Your task to perform on an android device: allow notifications from all sites in the chrome app Image 0: 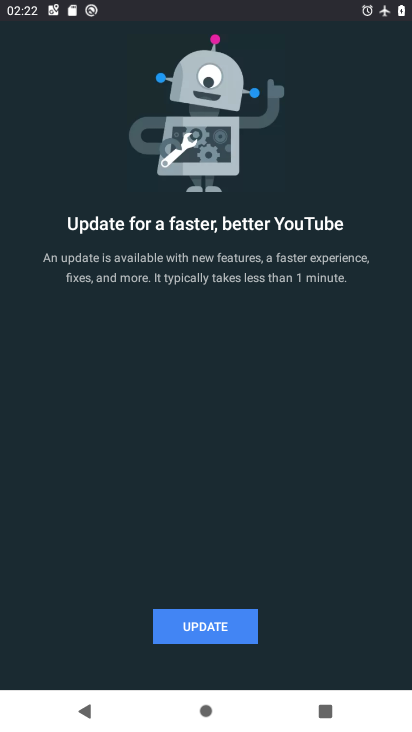
Step 0: press home button
Your task to perform on an android device: allow notifications from all sites in the chrome app Image 1: 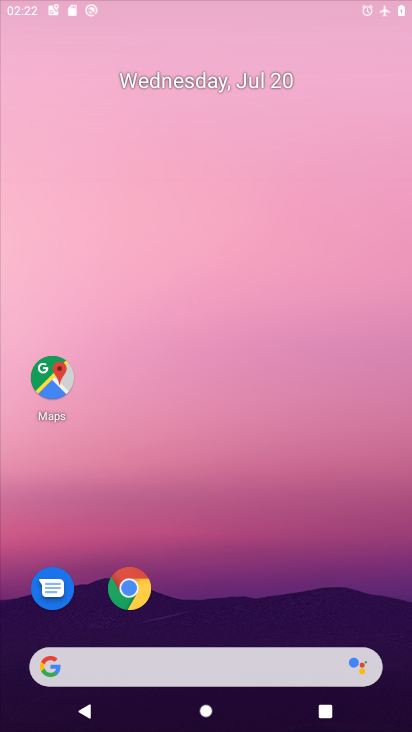
Step 1: drag from (271, 667) to (269, 270)
Your task to perform on an android device: allow notifications from all sites in the chrome app Image 2: 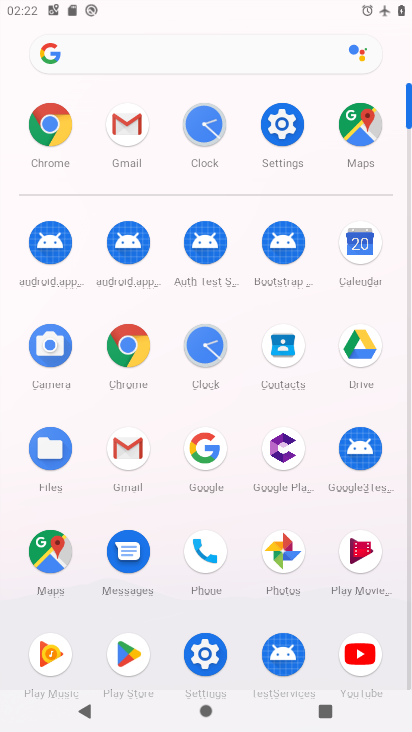
Step 2: click (50, 122)
Your task to perform on an android device: allow notifications from all sites in the chrome app Image 3: 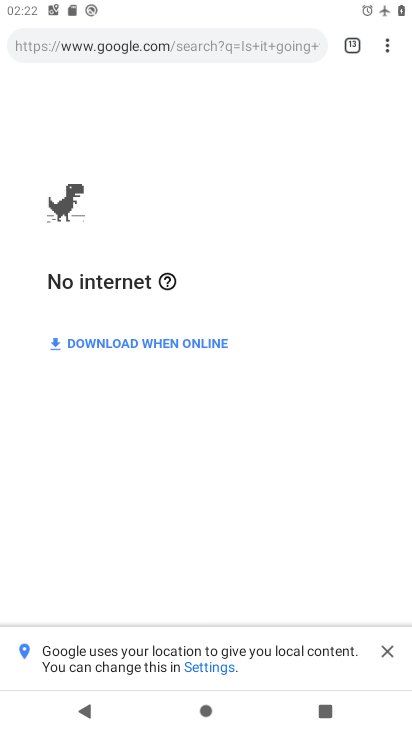
Step 3: click (385, 40)
Your task to perform on an android device: allow notifications from all sites in the chrome app Image 4: 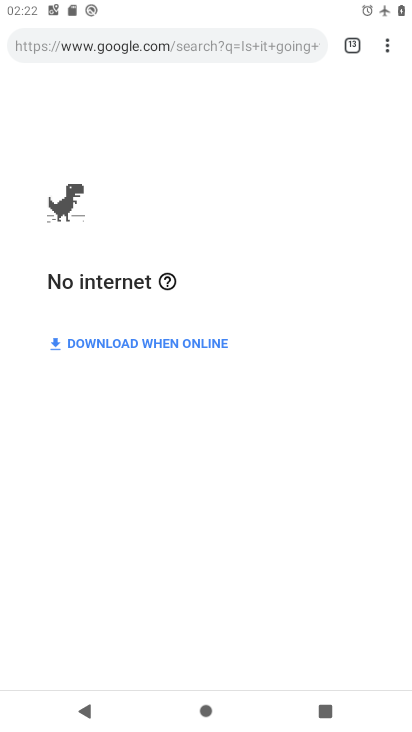
Step 4: click (385, 43)
Your task to perform on an android device: allow notifications from all sites in the chrome app Image 5: 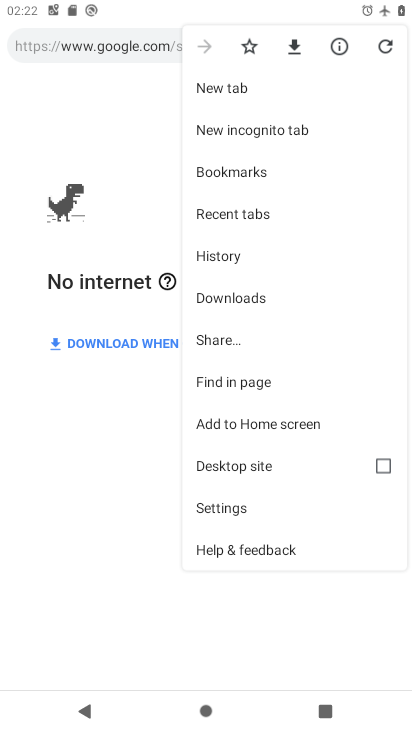
Step 5: click (263, 508)
Your task to perform on an android device: allow notifications from all sites in the chrome app Image 6: 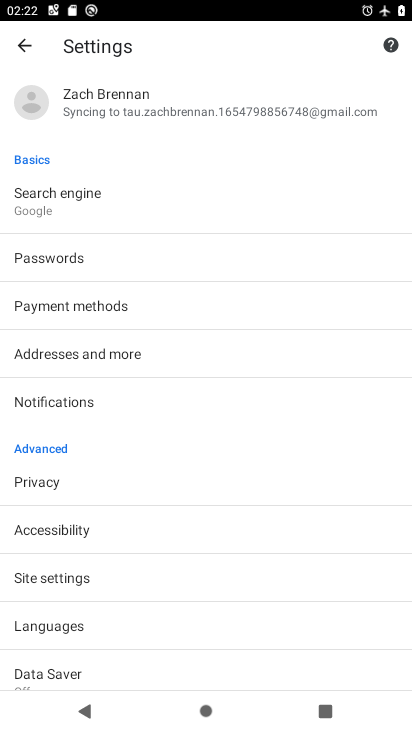
Step 6: click (112, 583)
Your task to perform on an android device: allow notifications from all sites in the chrome app Image 7: 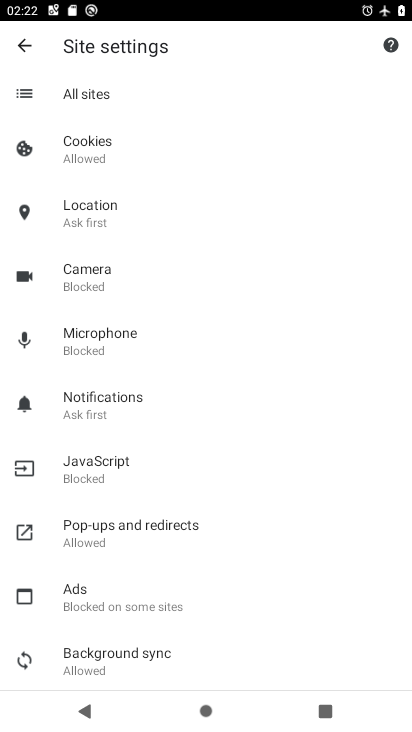
Step 7: click (74, 145)
Your task to perform on an android device: allow notifications from all sites in the chrome app Image 8: 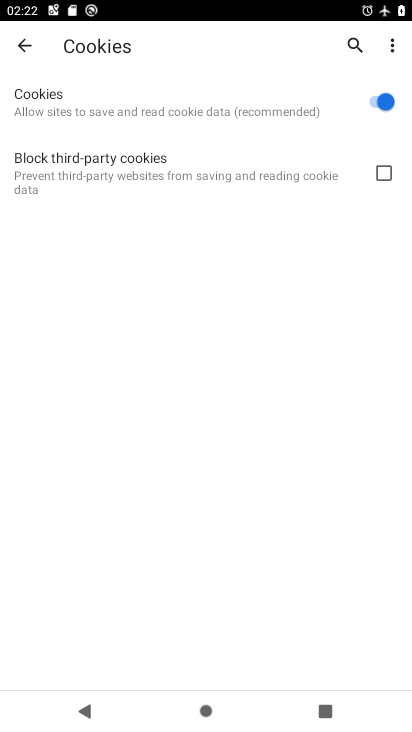
Step 8: click (27, 47)
Your task to perform on an android device: allow notifications from all sites in the chrome app Image 9: 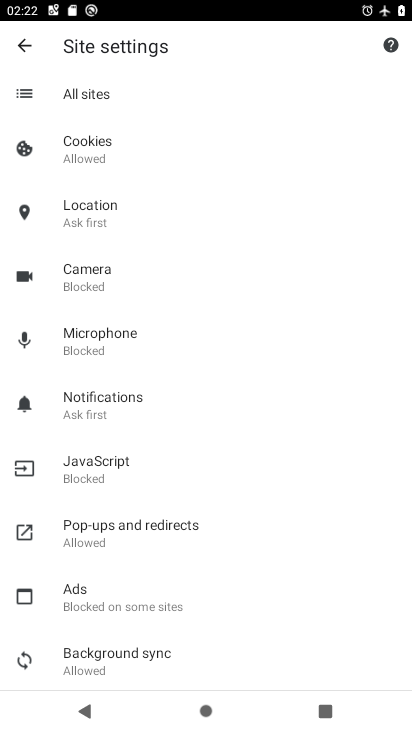
Step 9: click (71, 235)
Your task to perform on an android device: allow notifications from all sites in the chrome app Image 10: 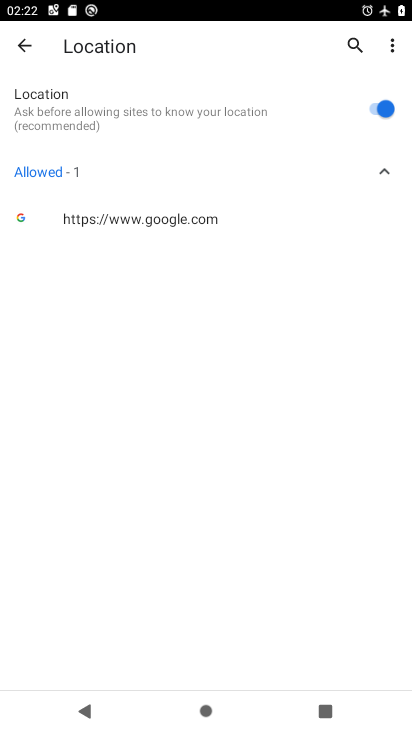
Step 10: click (25, 56)
Your task to perform on an android device: allow notifications from all sites in the chrome app Image 11: 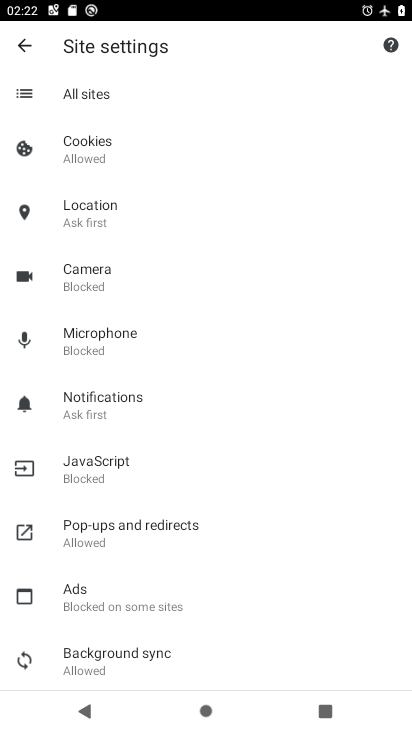
Step 11: click (102, 355)
Your task to perform on an android device: allow notifications from all sites in the chrome app Image 12: 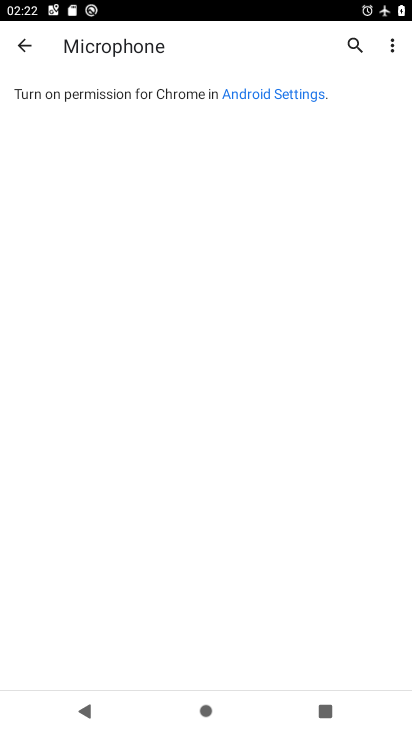
Step 12: click (25, 42)
Your task to perform on an android device: allow notifications from all sites in the chrome app Image 13: 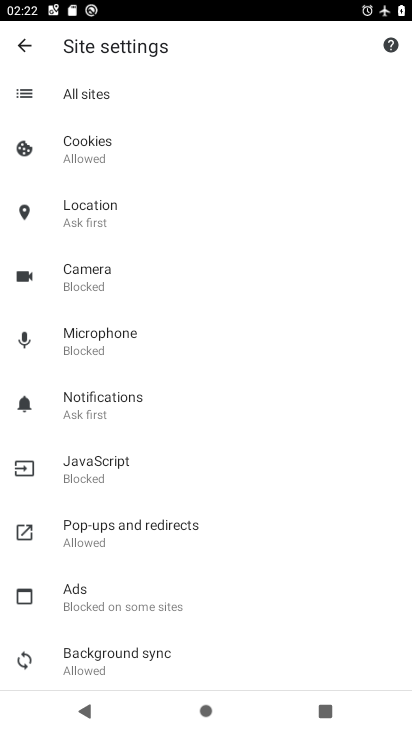
Step 13: click (132, 398)
Your task to perform on an android device: allow notifications from all sites in the chrome app Image 14: 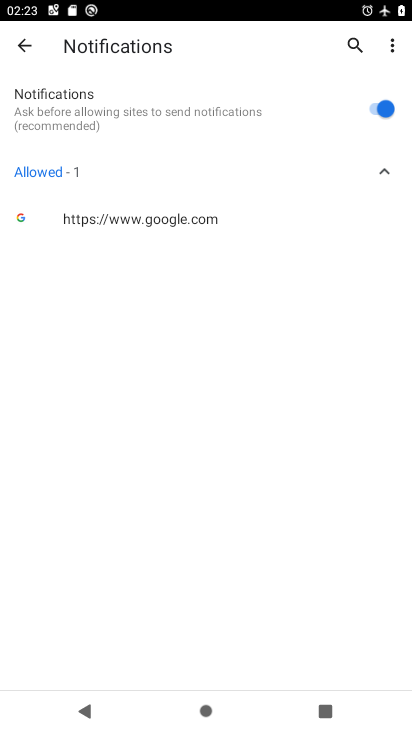
Step 14: click (33, 48)
Your task to perform on an android device: allow notifications from all sites in the chrome app Image 15: 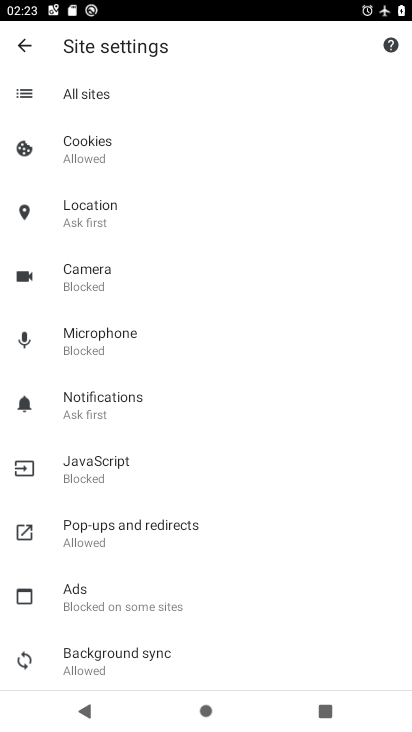
Step 15: click (127, 540)
Your task to perform on an android device: allow notifications from all sites in the chrome app Image 16: 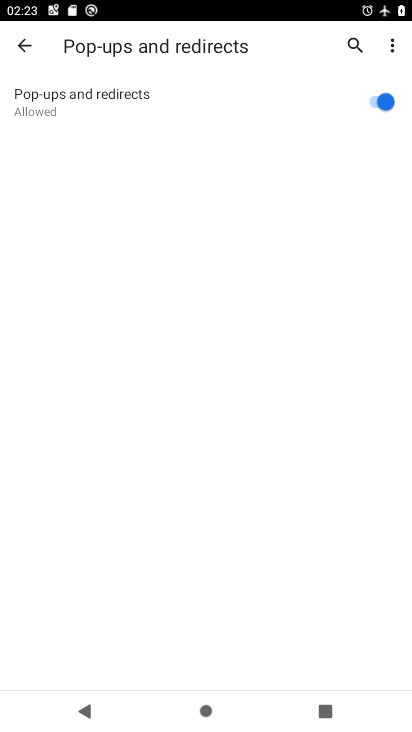
Step 16: click (20, 41)
Your task to perform on an android device: allow notifications from all sites in the chrome app Image 17: 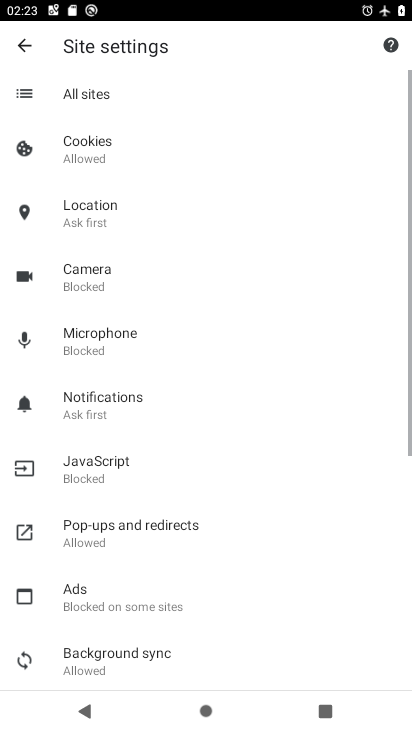
Step 17: task complete